Your task to perform on an android device: toggle javascript in the chrome app Image 0: 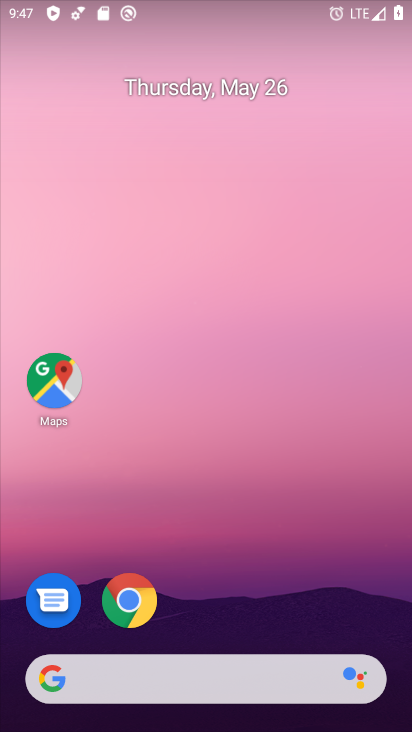
Step 0: click (135, 608)
Your task to perform on an android device: toggle javascript in the chrome app Image 1: 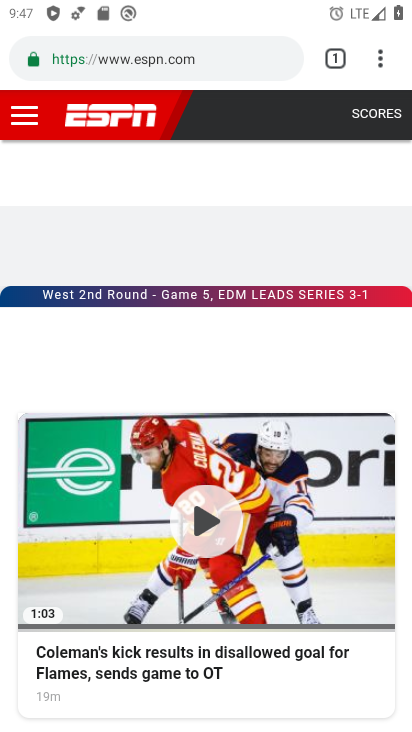
Step 1: drag from (388, 55) to (213, 620)
Your task to perform on an android device: toggle javascript in the chrome app Image 2: 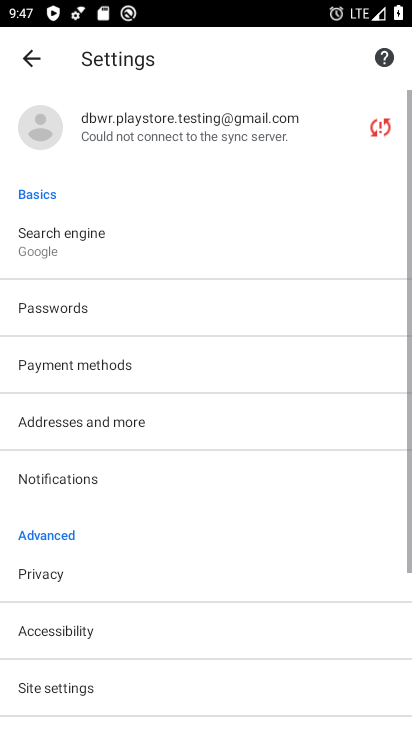
Step 2: drag from (209, 619) to (224, 81)
Your task to perform on an android device: toggle javascript in the chrome app Image 3: 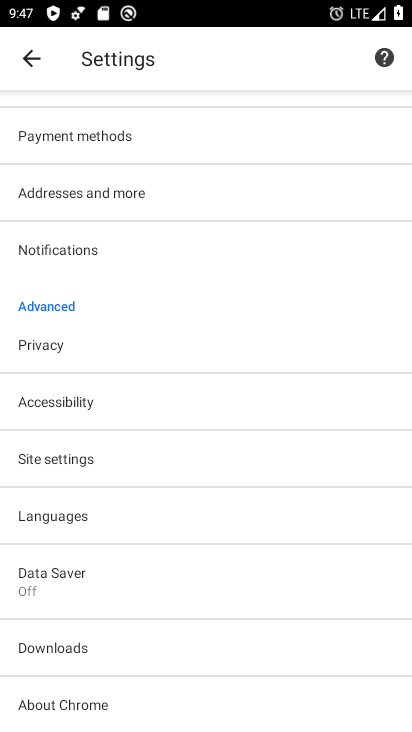
Step 3: click (83, 455)
Your task to perform on an android device: toggle javascript in the chrome app Image 4: 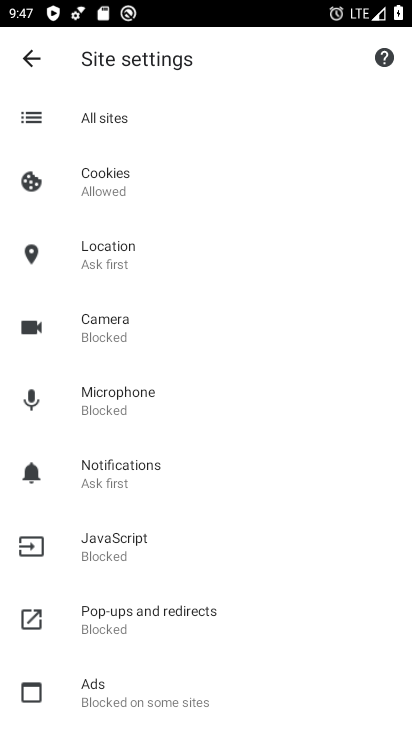
Step 4: click (156, 542)
Your task to perform on an android device: toggle javascript in the chrome app Image 5: 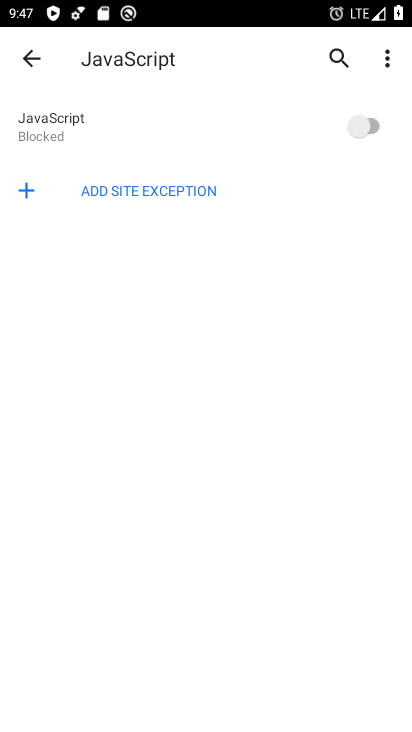
Step 5: click (359, 131)
Your task to perform on an android device: toggle javascript in the chrome app Image 6: 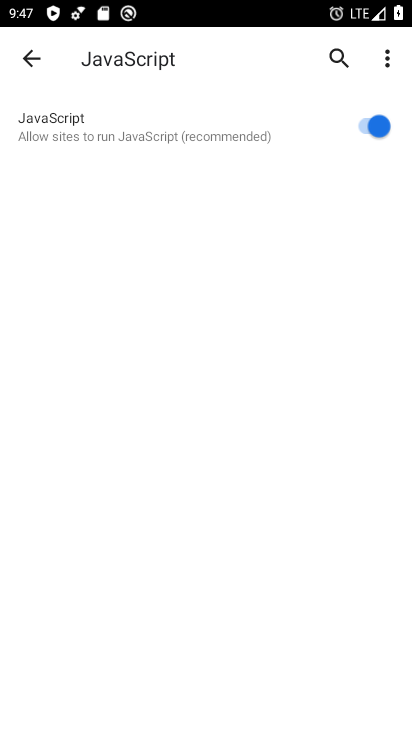
Step 6: task complete